Your task to perform on an android device: stop showing notifications on the lock screen Image 0: 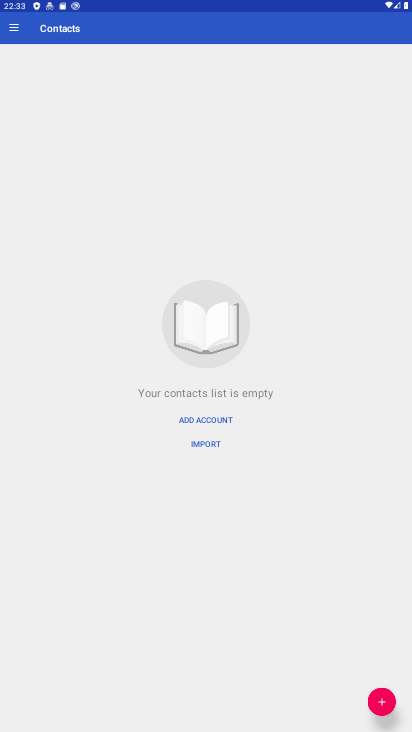
Step 0: press back button
Your task to perform on an android device: stop showing notifications on the lock screen Image 1: 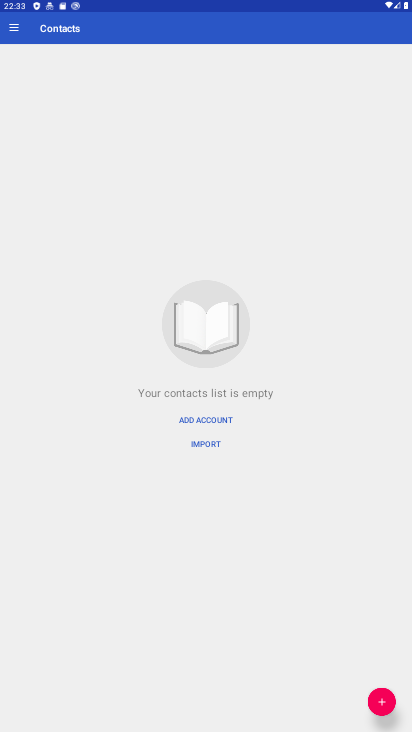
Step 1: press back button
Your task to perform on an android device: stop showing notifications on the lock screen Image 2: 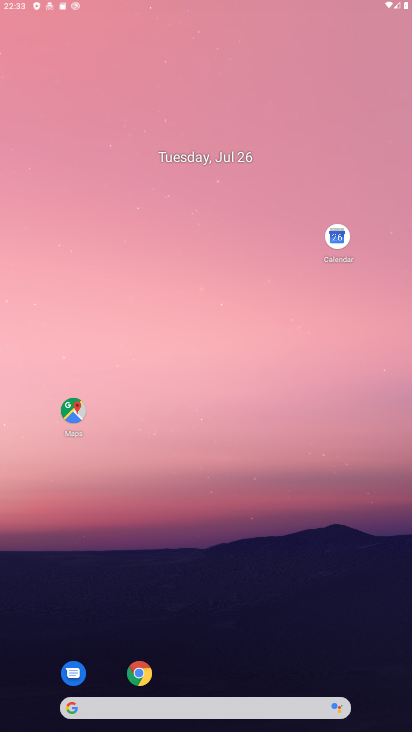
Step 2: press back button
Your task to perform on an android device: stop showing notifications on the lock screen Image 3: 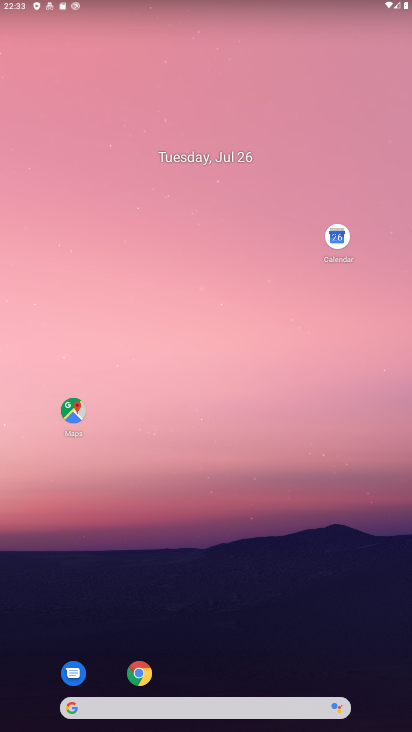
Step 3: drag from (259, 660) to (187, 23)
Your task to perform on an android device: stop showing notifications on the lock screen Image 4: 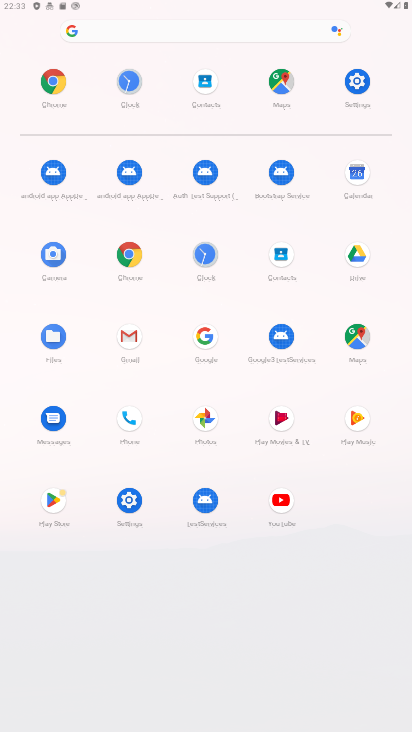
Step 4: click (203, 110)
Your task to perform on an android device: stop showing notifications on the lock screen Image 5: 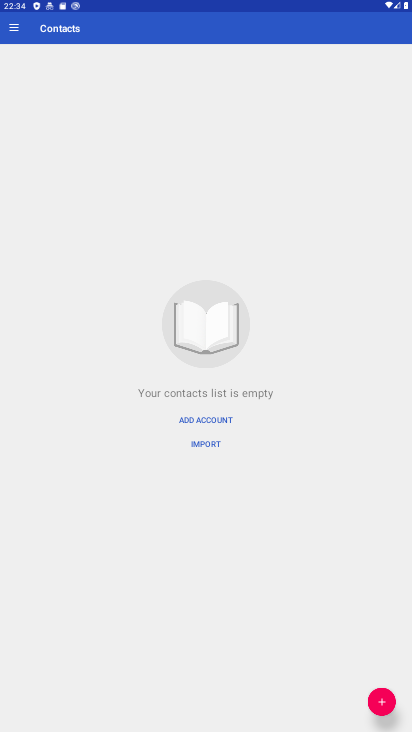
Step 5: press back button
Your task to perform on an android device: stop showing notifications on the lock screen Image 6: 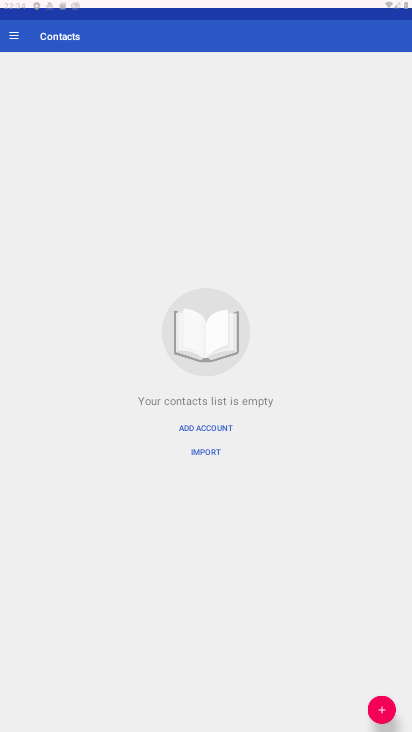
Step 6: press back button
Your task to perform on an android device: stop showing notifications on the lock screen Image 7: 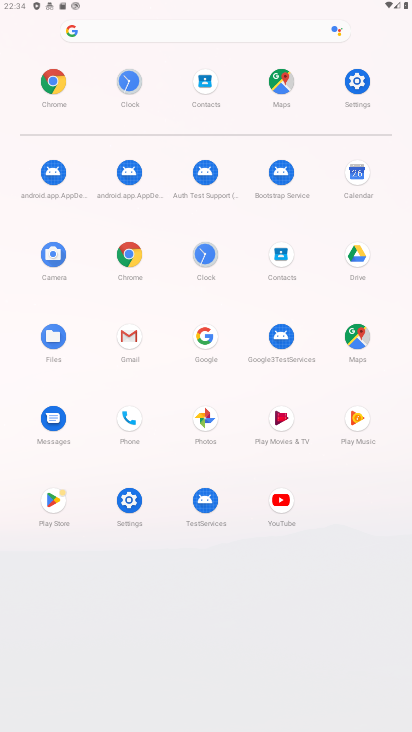
Step 7: press back button
Your task to perform on an android device: stop showing notifications on the lock screen Image 8: 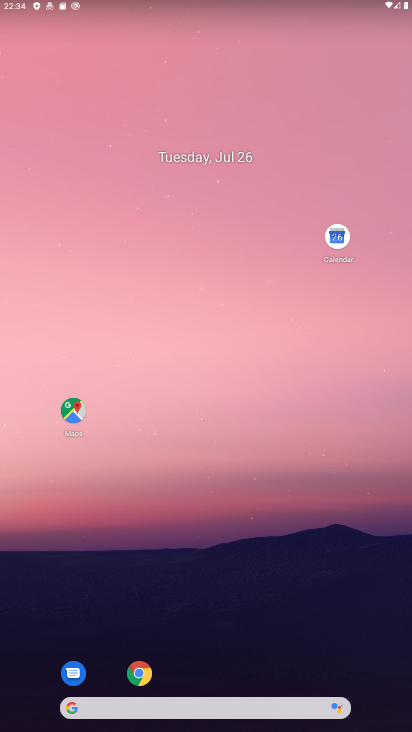
Step 8: click (179, 44)
Your task to perform on an android device: stop showing notifications on the lock screen Image 9: 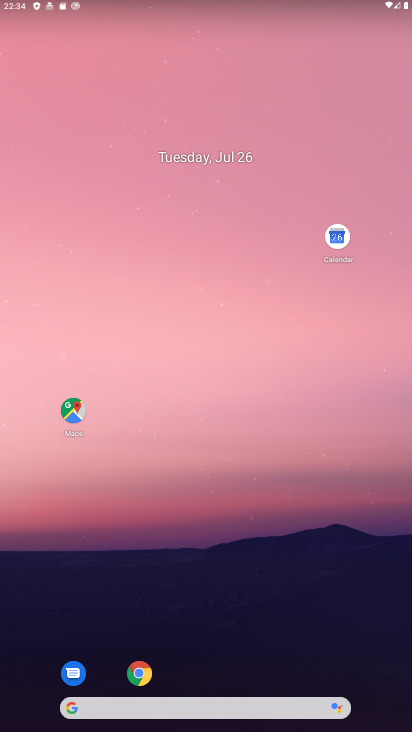
Step 9: drag from (285, 36) to (191, 82)
Your task to perform on an android device: stop showing notifications on the lock screen Image 10: 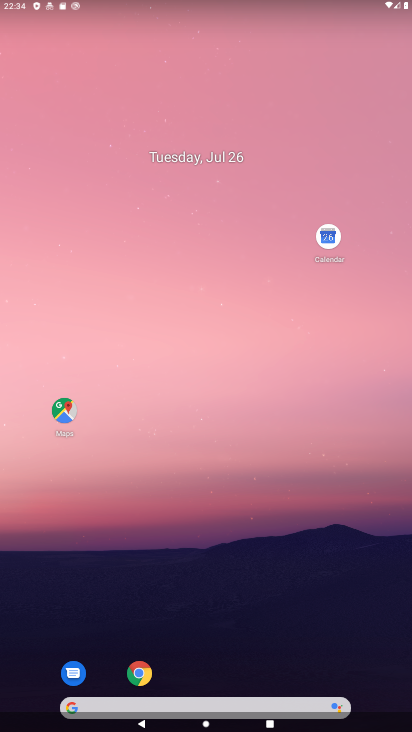
Step 10: drag from (173, 428) to (68, 13)
Your task to perform on an android device: stop showing notifications on the lock screen Image 11: 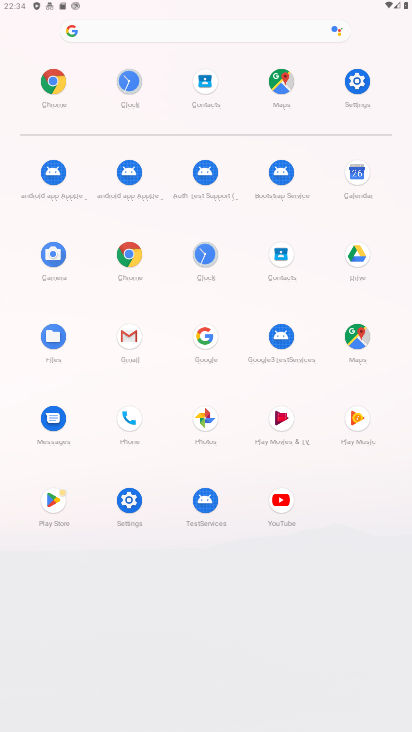
Step 11: click (206, 255)
Your task to perform on an android device: stop showing notifications on the lock screen Image 12: 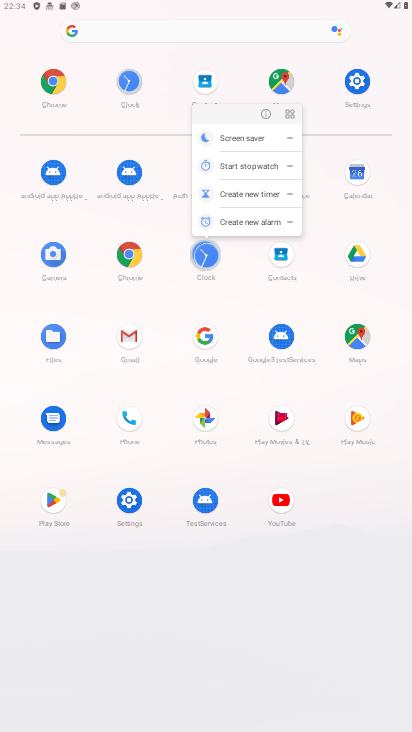
Step 12: click (206, 257)
Your task to perform on an android device: stop showing notifications on the lock screen Image 13: 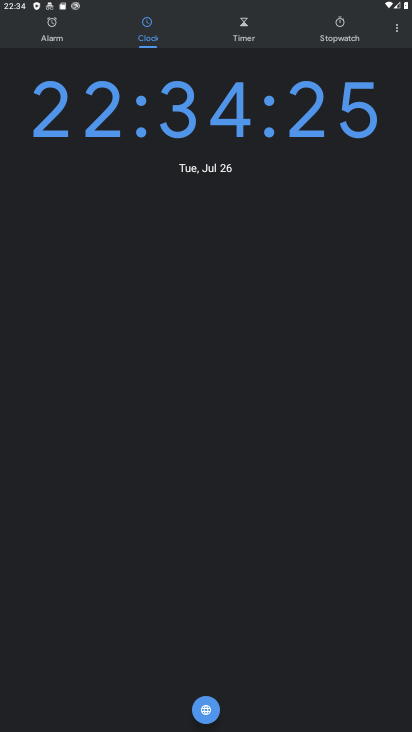
Step 13: click (388, 31)
Your task to perform on an android device: stop showing notifications on the lock screen Image 14: 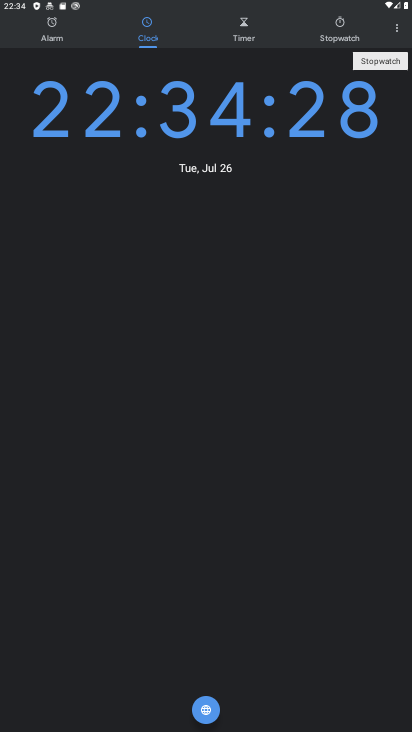
Step 14: press back button
Your task to perform on an android device: stop showing notifications on the lock screen Image 15: 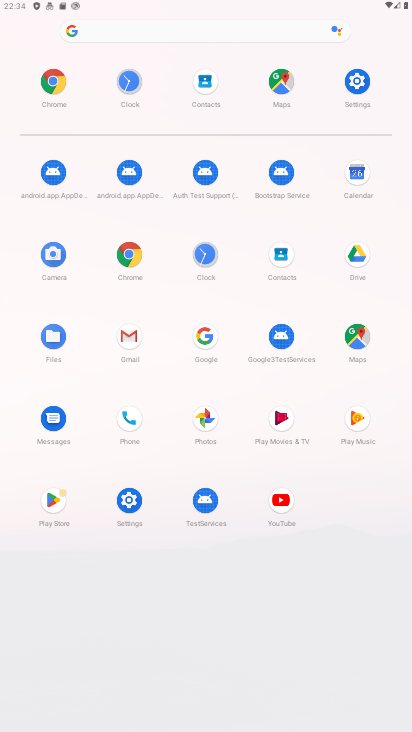
Step 15: click (352, 85)
Your task to perform on an android device: stop showing notifications on the lock screen Image 16: 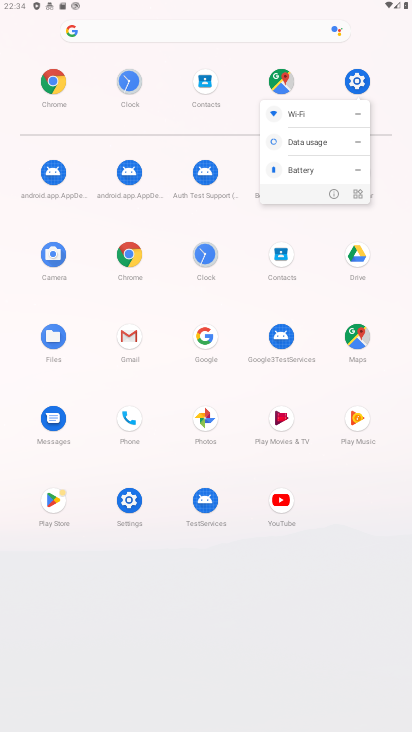
Step 16: click (347, 87)
Your task to perform on an android device: stop showing notifications on the lock screen Image 17: 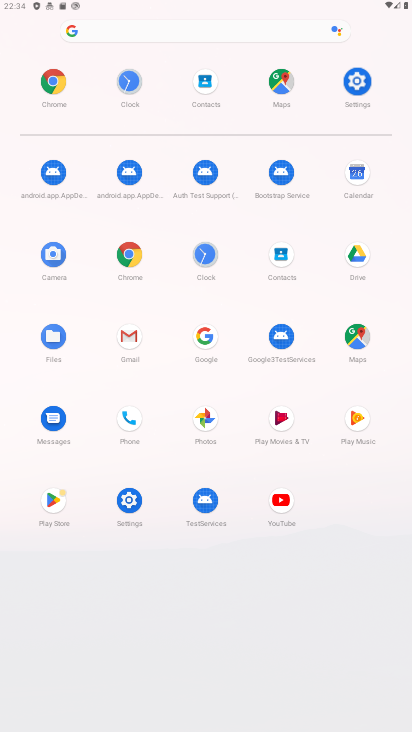
Step 17: click (356, 96)
Your task to perform on an android device: stop showing notifications on the lock screen Image 18: 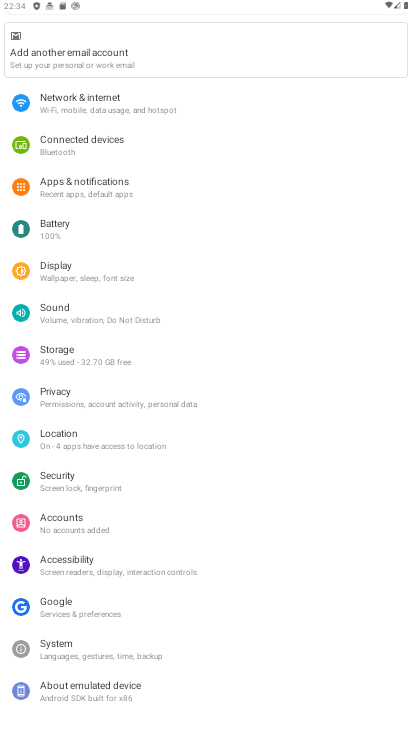
Step 18: click (102, 190)
Your task to perform on an android device: stop showing notifications on the lock screen Image 19: 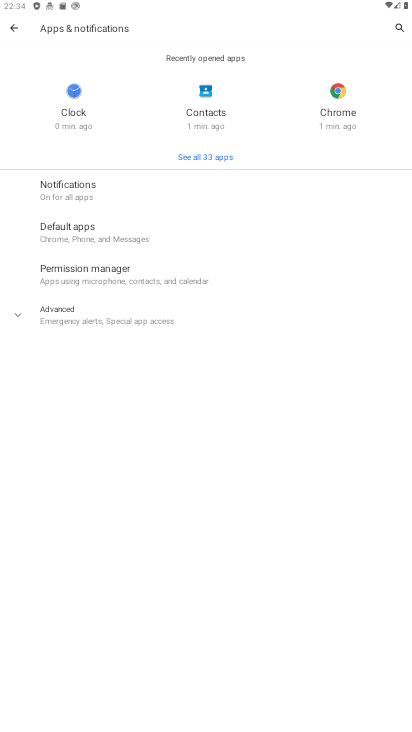
Step 19: click (64, 183)
Your task to perform on an android device: stop showing notifications on the lock screen Image 20: 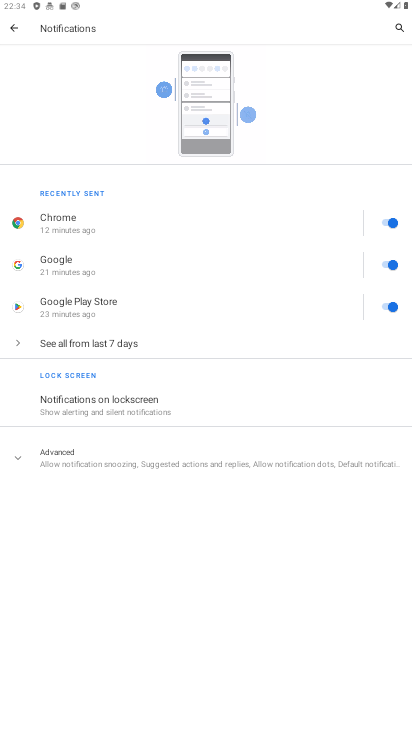
Step 20: click (82, 399)
Your task to perform on an android device: stop showing notifications on the lock screen Image 21: 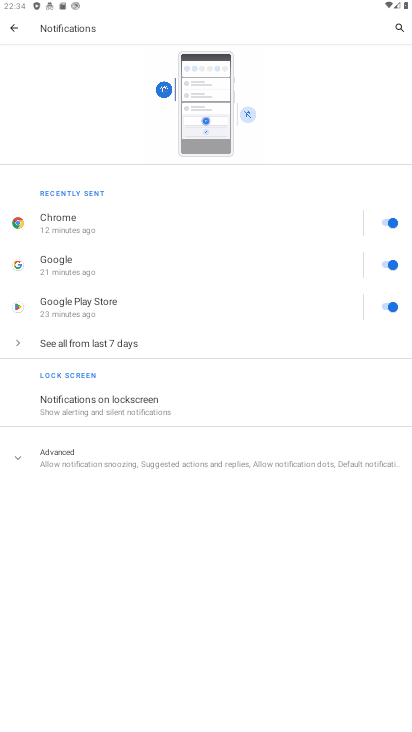
Step 21: click (81, 403)
Your task to perform on an android device: stop showing notifications on the lock screen Image 22: 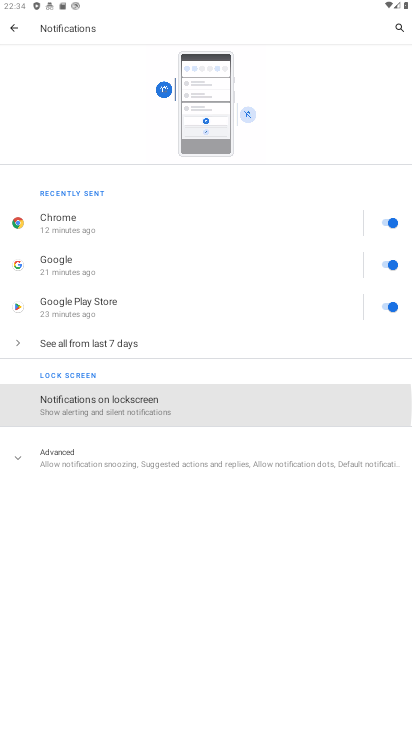
Step 22: click (81, 403)
Your task to perform on an android device: stop showing notifications on the lock screen Image 23: 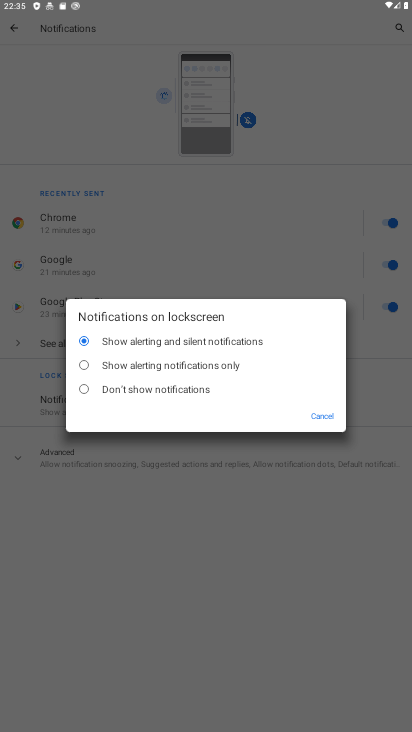
Step 23: click (81, 383)
Your task to perform on an android device: stop showing notifications on the lock screen Image 24: 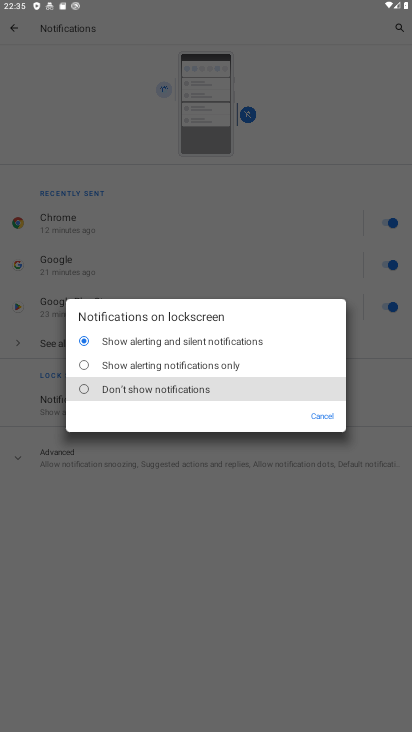
Step 24: click (81, 383)
Your task to perform on an android device: stop showing notifications on the lock screen Image 25: 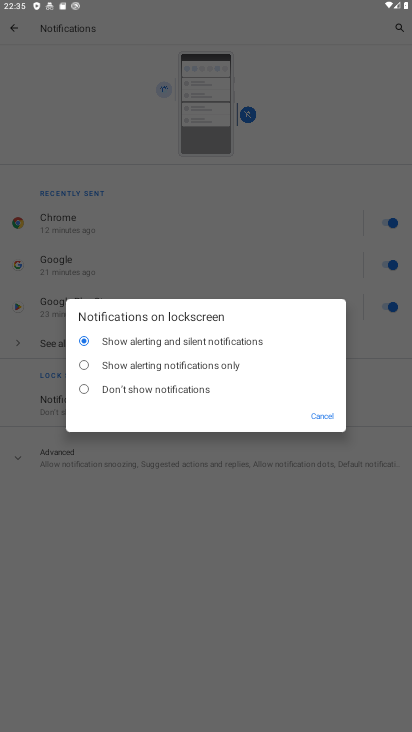
Step 25: click (87, 388)
Your task to perform on an android device: stop showing notifications on the lock screen Image 26: 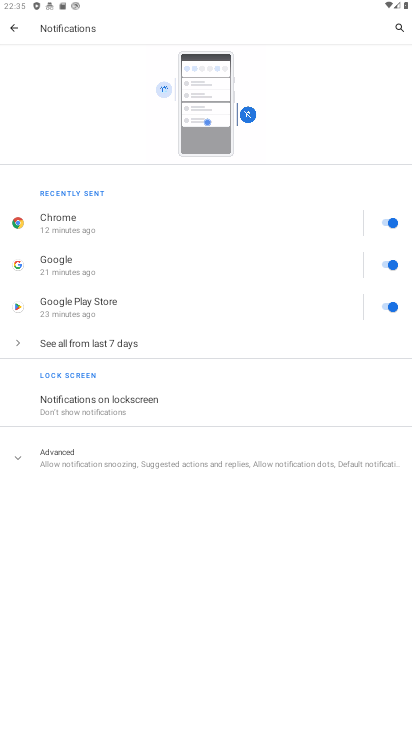
Step 26: click (19, 27)
Your task to perform on an android device: stop showing notifications on the lock screen Image 27: 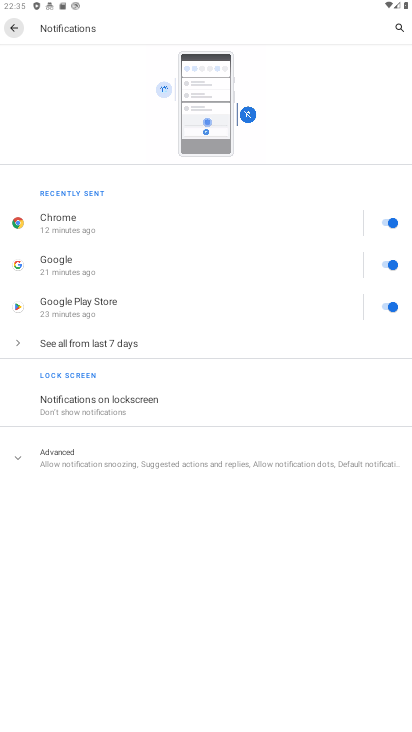
Step 27: click (19, 27)
Your task to perform on an android device: stop showing notifications on the lock screen Image 28: 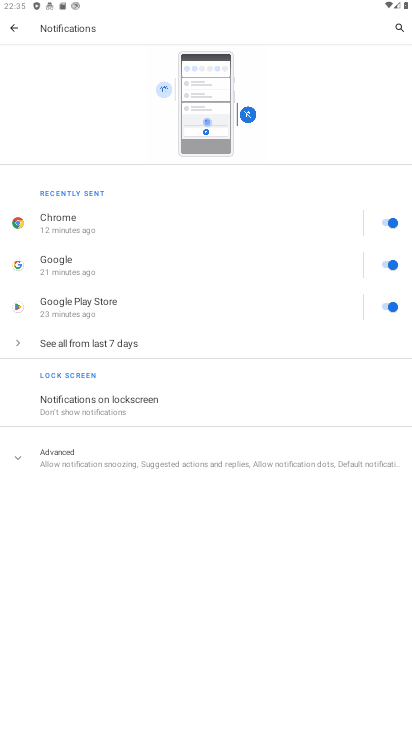
Step 28: click (23, 40)
Your task to perform on an android device: stop showing notifications on the lock screen Image 29: 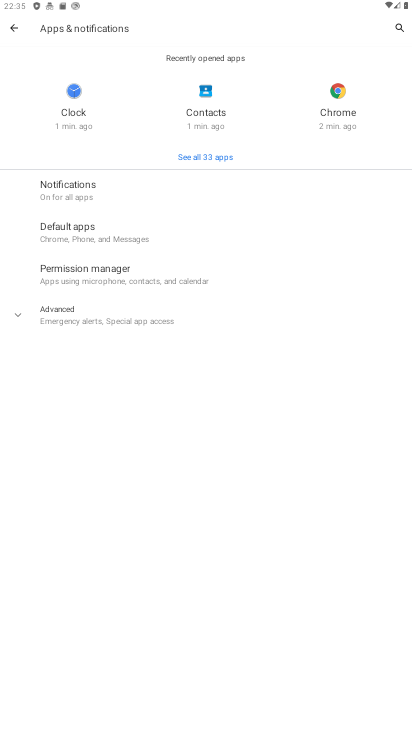
Step 29: click (7, 27)
Your task to perform on an android device: stop showing notifications on the lock screen Image 30: 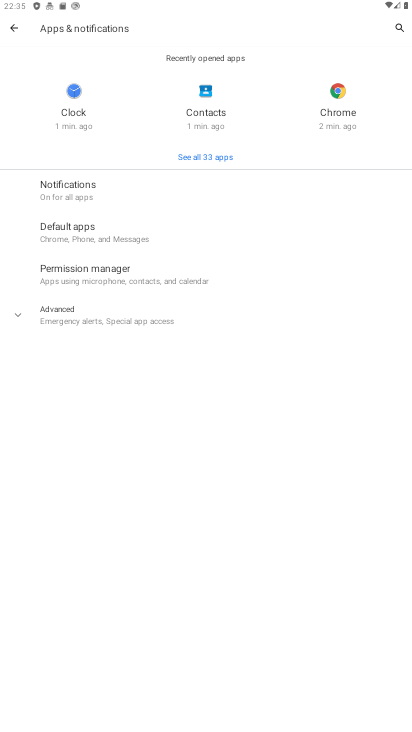
Step 30: click (7, 27)
Your task to perform on an android device: stop showing notifications on the lock screen Image 31: 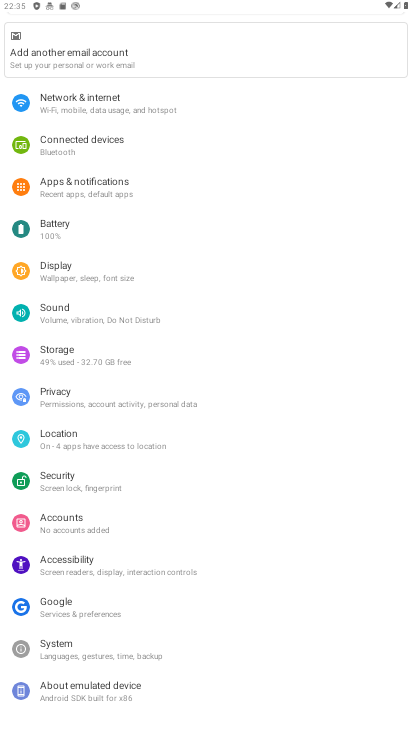
Step 31: click (70, 183)
Your task to perform on an android device: stop showing notifications on the lock screen Image 32: 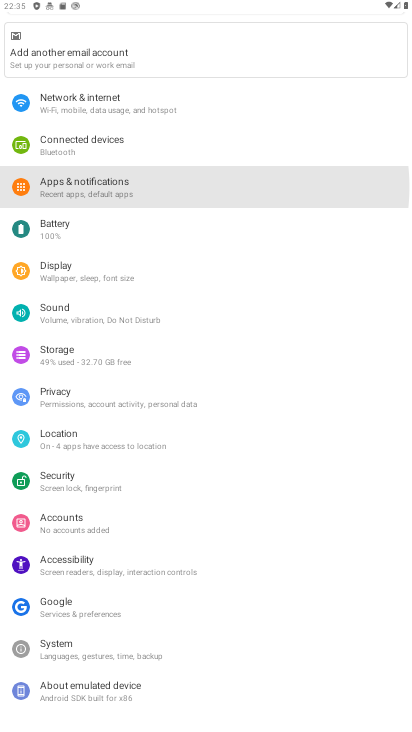
Step 32: click (69, 192)
Your task to perform on an android device: stop showing notifications on the lock screen Image 33: 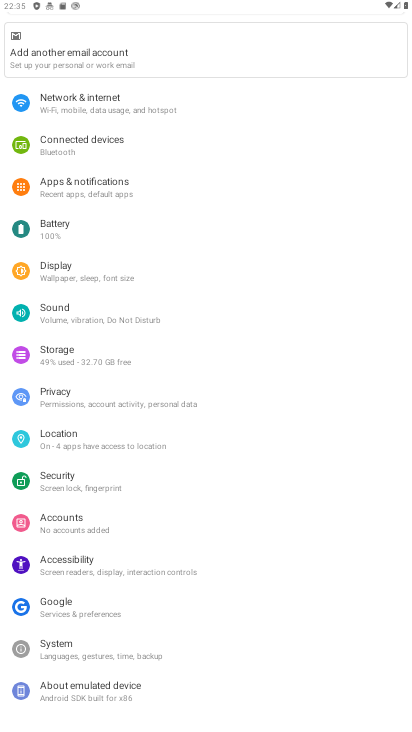
Step 33: click (69, 192)
Your task to perform on an android device: stop showing notifications on the lock screen Image 34: 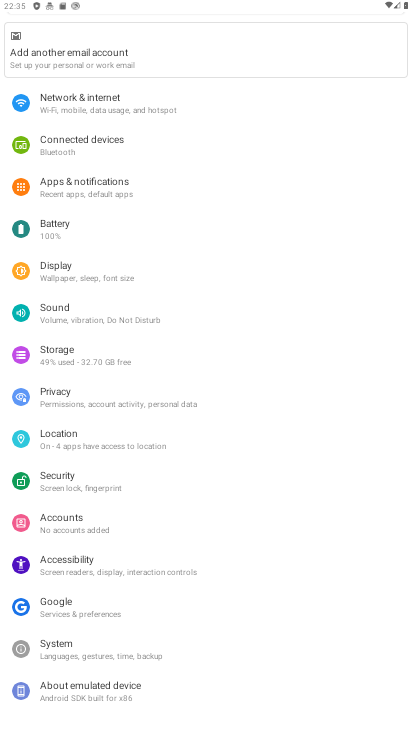
Step 34: click (69, 192)
Your task to perform on an android device: stop showing notifications on the lock screen Image 35: 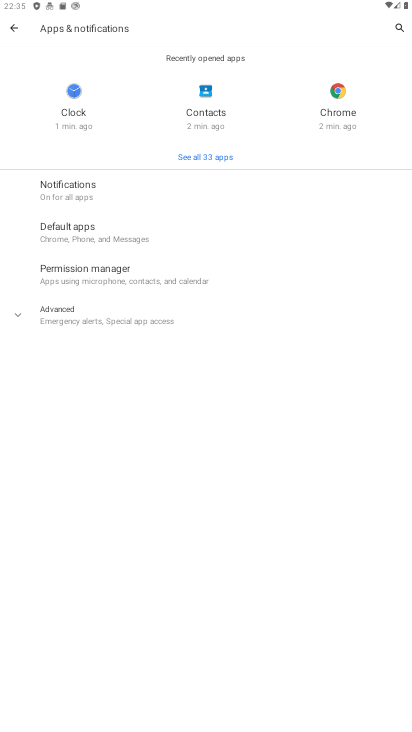
Step 35: click (67, 203)
Your task to perform on an android device: stop showing notifications on the lock screen Image 36: 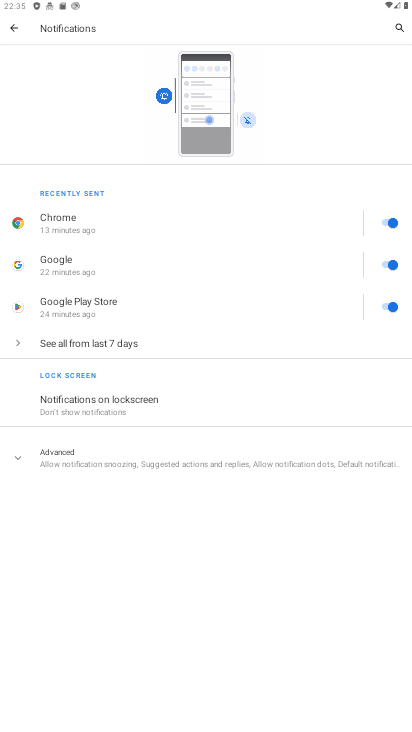
Step 36: click (69, 383)
Your task to perform on an android device: stop showing notifications on the lock screen Image 37: 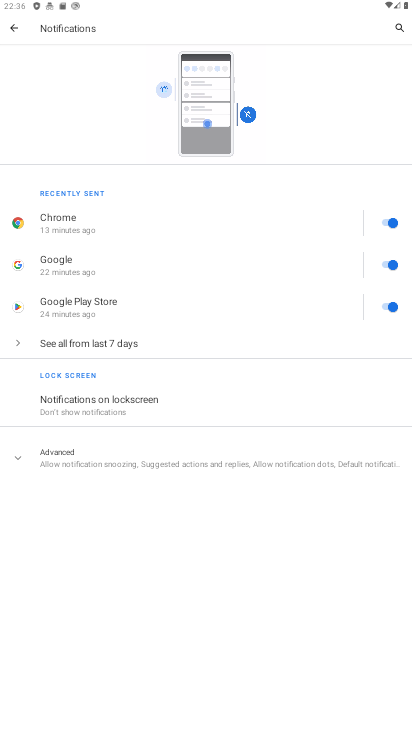
Step 37: click (75, 401)
Your task to perform on an android device: stop showing notifications on the lock screen Image 38: 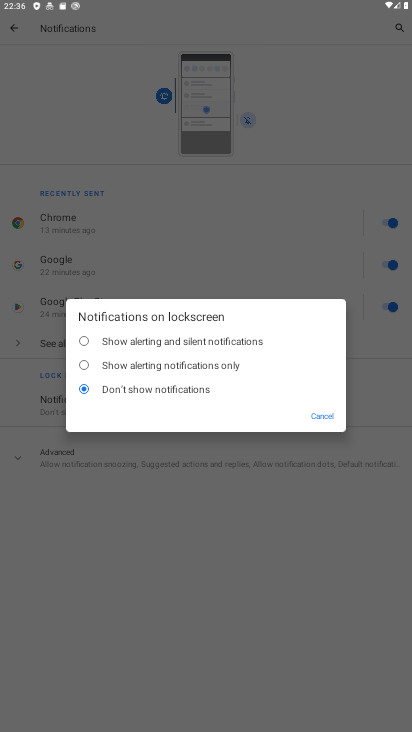
Step 38: click (300, 408)
Your task to perform on an android device: stop showing notifications on the lock screen Image 39: 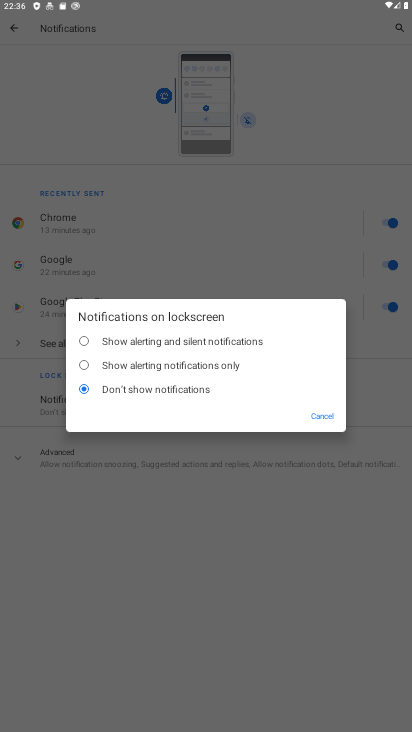
Step 39: task complete